Your task to perform on an android device: all mails in gmail Image 0: 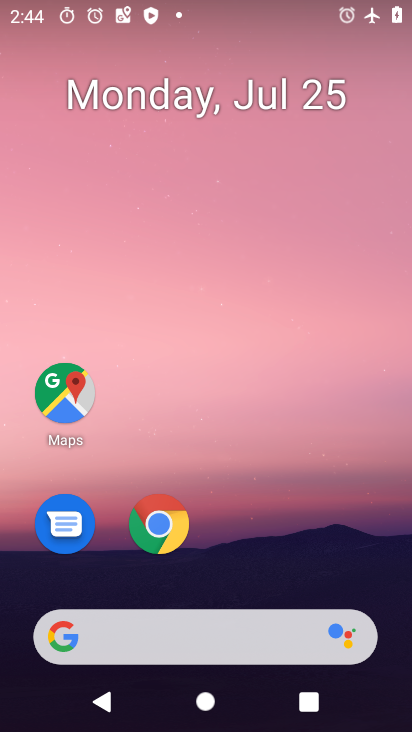
Step 0: press home button
Your task to perform on an android device: all mails in gmail Image 1: 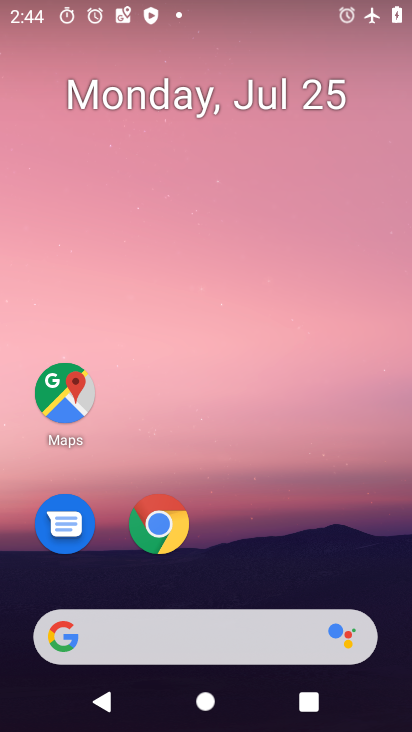
Step 1: drag from (261, 597) to (238, 111)
Your task to perform on an android device: all mails in gmail Image 2: 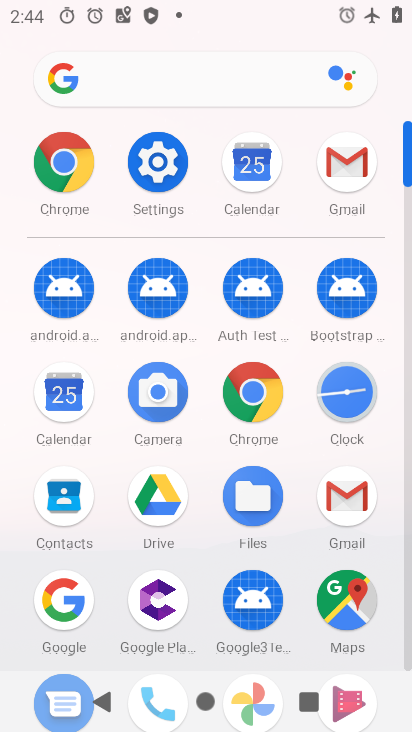
Step 2: click (342, 162)
Your task to perform on an android device: all mails in gmail Image 3: 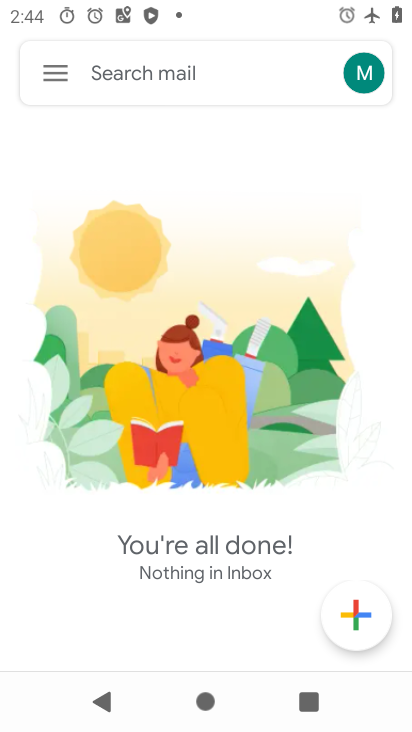
Step 3: click (54, 70)
Your task to perform on an android device: all mails in gmail Image 4: 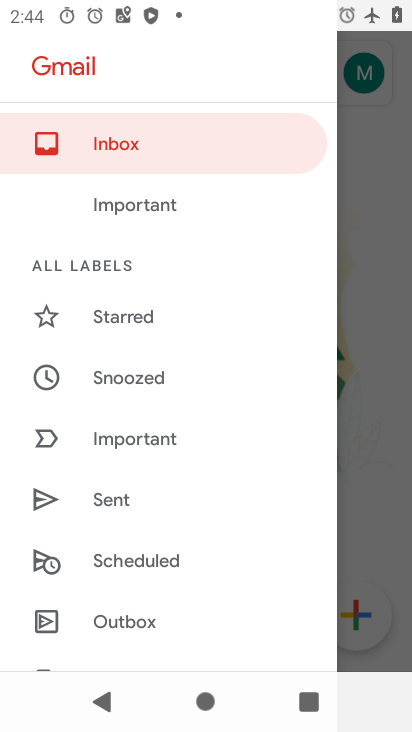
Step 4: drag from (265, 561) to (288, 63)
Your task to perform on an android device: all mails in gmail Image 5: 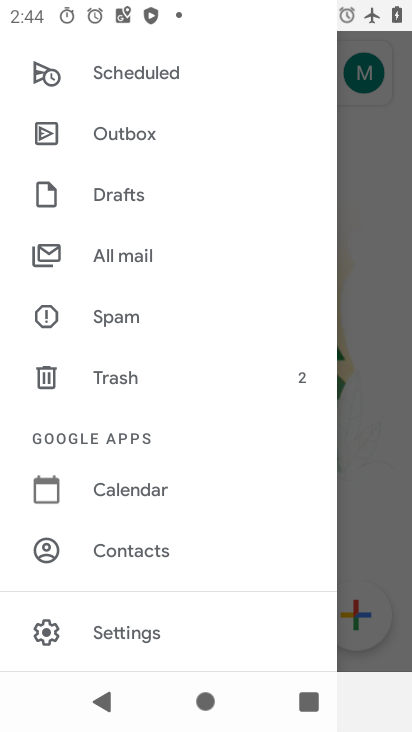
Step 5: click (118, 254)
Your task to perform on an android device: all mails in gmail Image 6: 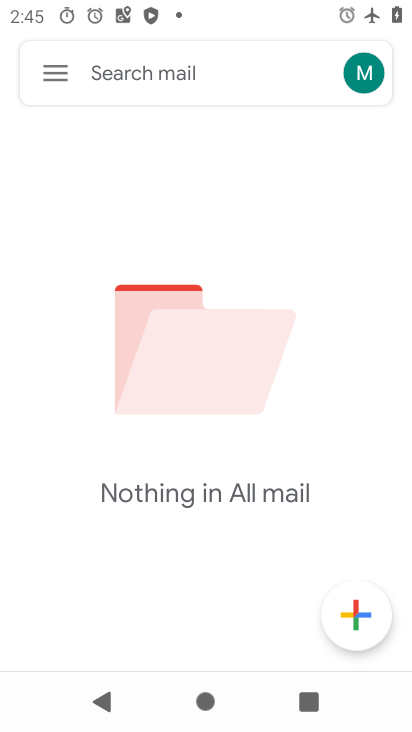
Step 6: task complete